Your task to perform on an android device: Go to internet settings Image 0: 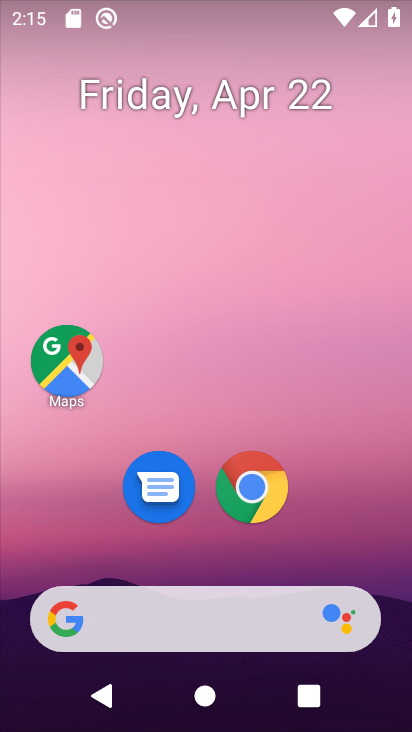
Step 0: drag from (244, 522) to (267, 176)
Your task to perform on an android device: Go to internet settings Image 1: 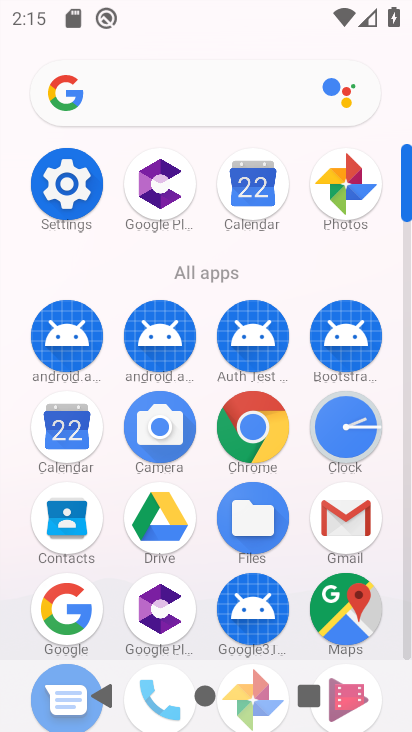
Step 1: click (70, 202)
Your task to perform on an android device: Go to internet settings Image 2: 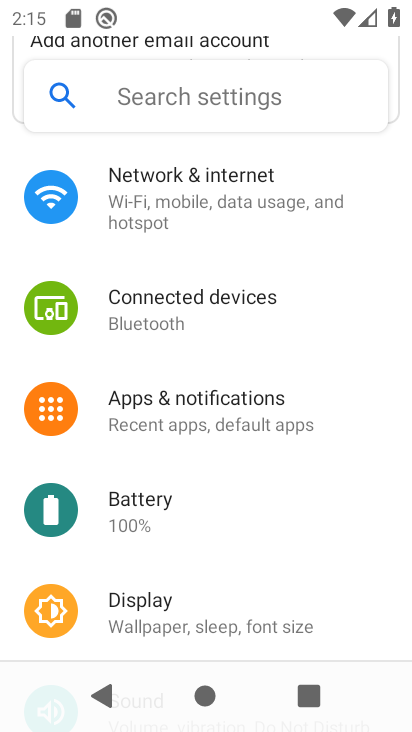
Step 2: click (236, 213)
Your task to perform on an android device: Go to internet settings Image 3: 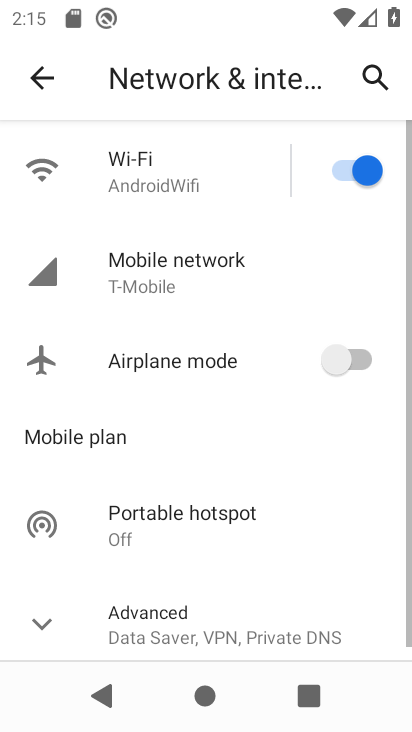
Step 3: task complete